Your task to perform on an android device: Go to Android settings Image 0: 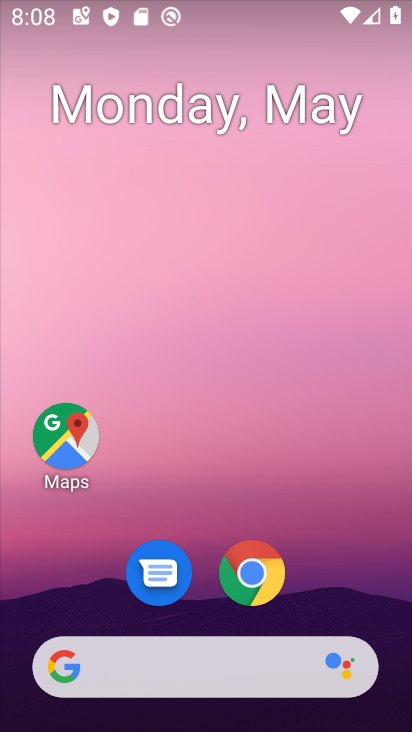
Step 0: drag from (332, 604) to (350, 50)
Your task to perform on an android device: Go to Android settings Image 1: 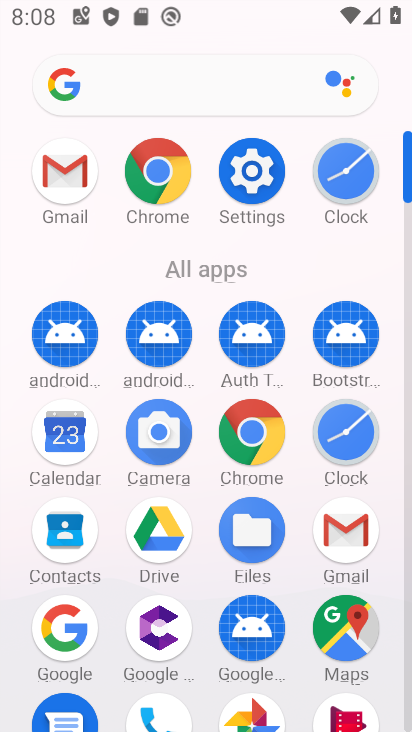
Step 1: click (280, 180)
Your task to perform on an android device: Go to Android settings Image 2: 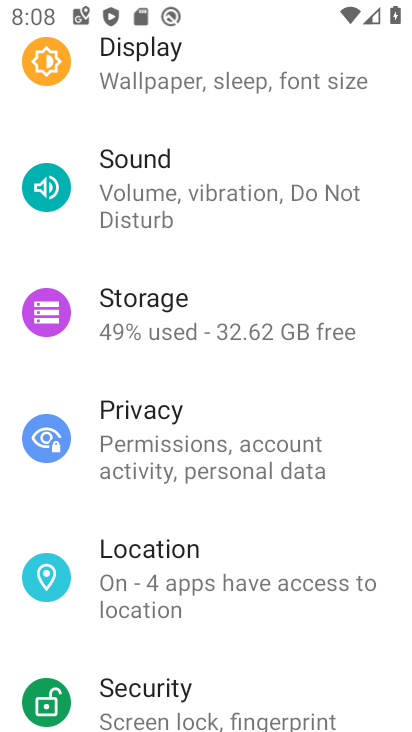
Step 2: task complete